Your task to perform on an android device: all mails in gmail Image 0: 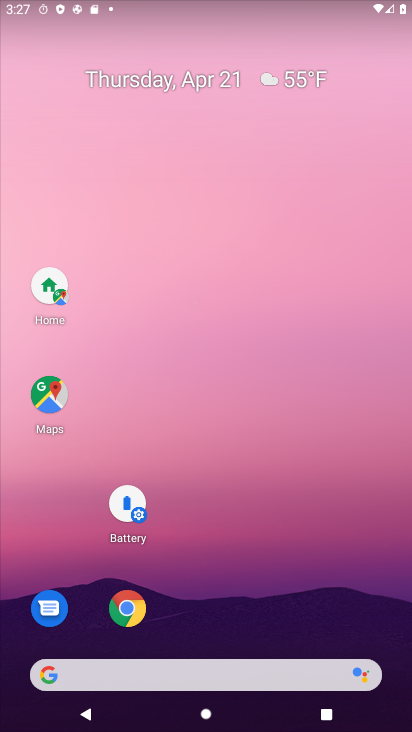
Step 0: drag from (315, 506) to (246, 101)
Your task to perform on an android device: all mails in gmail Image 1: 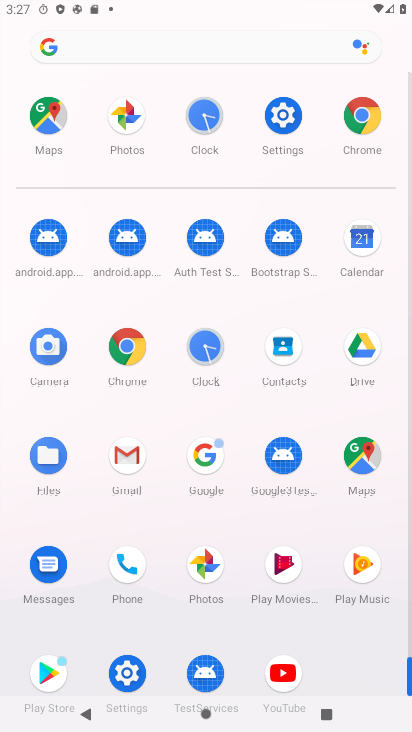
Step 1: click (129, 459)
Your task to perform on an android device: all mails in gmail Image 2: 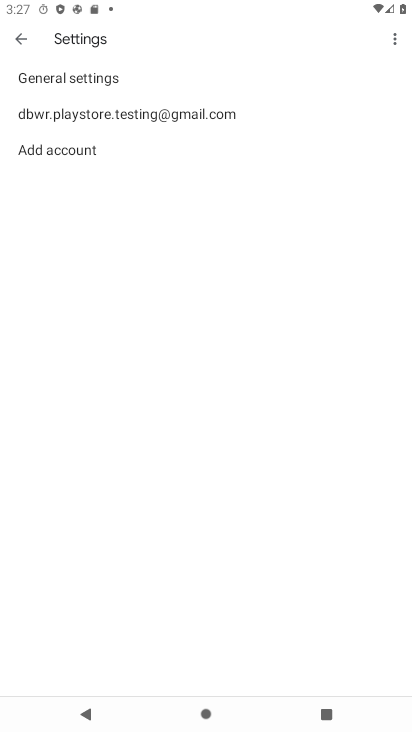
Step 2: click (16, 47)
Your task to perform on an android device: all mails in gmail Image 3: 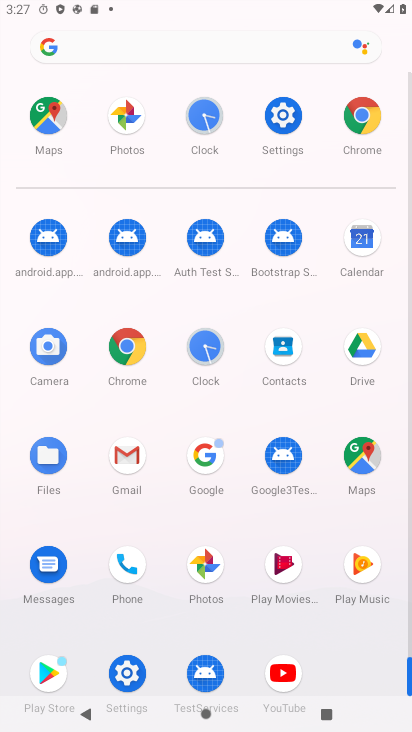
Step 3: click (127, 456)
Your task to perform on an android device: all mails in gmail Image 4: 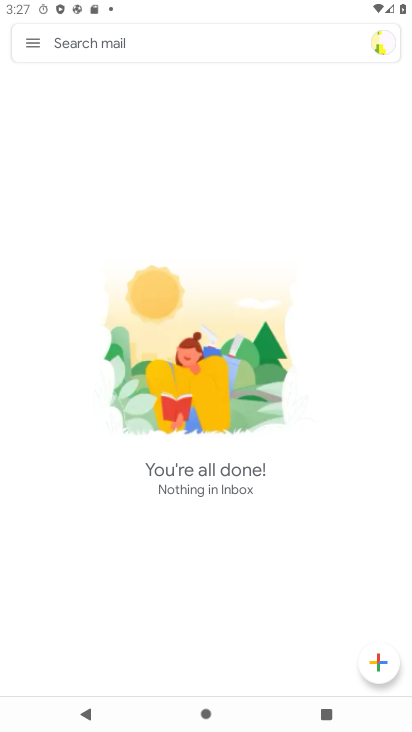
Step 4: click (36, 40)
Your task to perform on an android device: all mails in gmail Image 5: 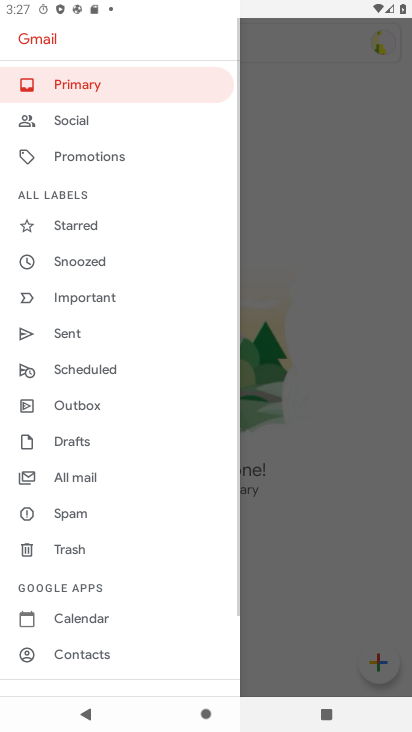
Step 5: click (116, 479)
Your task to perform on an android device: all mails in gmail Image 6: 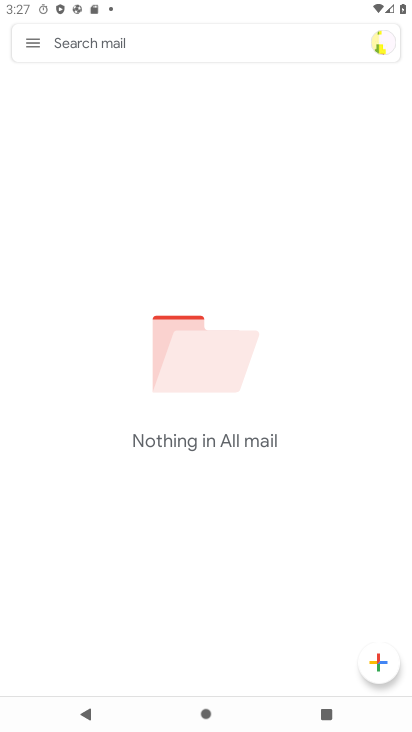
Step 6: task complete